Your task to perform on an android device: empty trash in the gmail app Image 0: 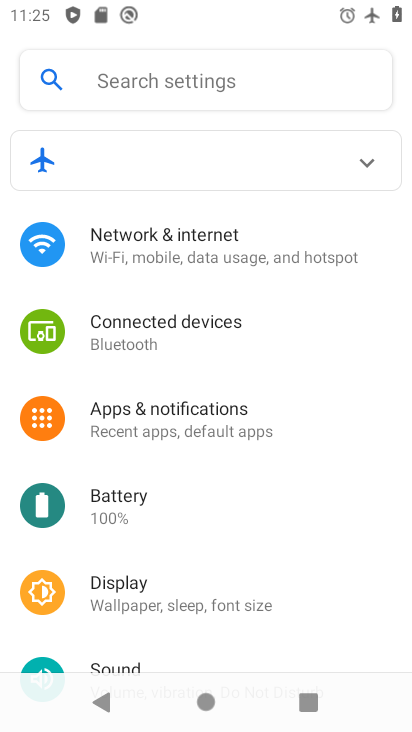
Step 0: press home button
Your task to perform on an android device: empty trash in the gmail app Image 1: 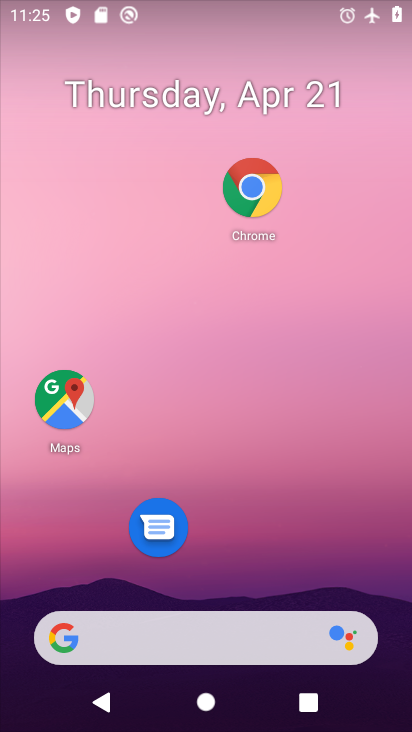
Step 1: drag from (315, 342) to (345, 44)
Your task to perform on an android device: empty trash in the gmail app Image 2: 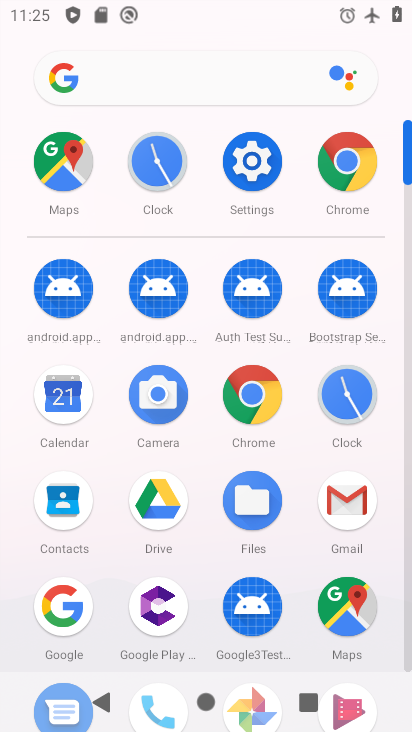
Step 2: click (341, 512)
Your task to perform on an android device: empty trash in the gmail app Image 3: 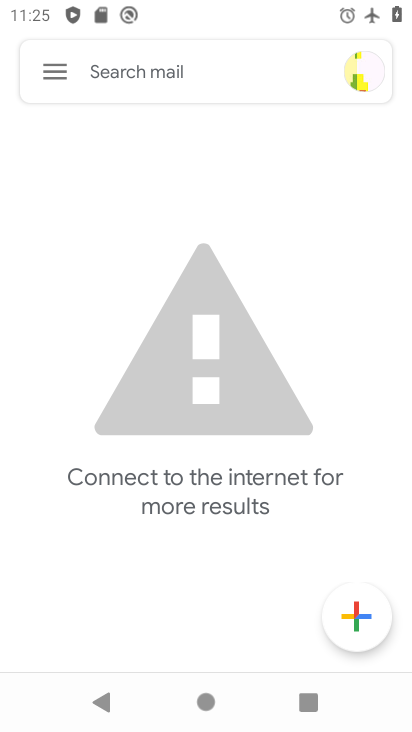
Step 3: click (64, 86)
Your task to perform on an android device: empty trash in the gmail app Image 4: 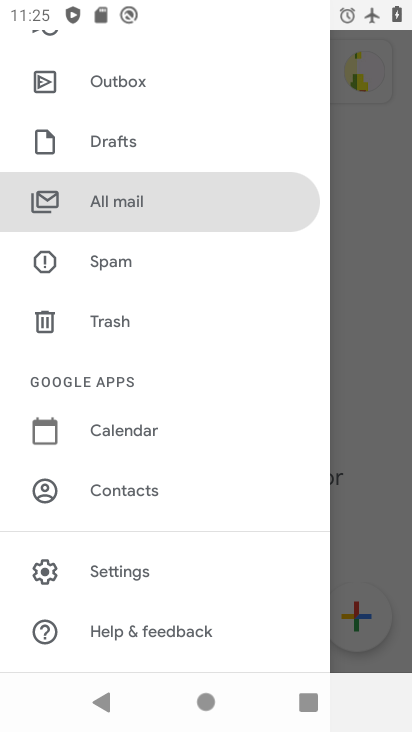
Step 4: click (174, 321)
Your task to perform on an android device: empty trash in the gmail app Image 5: 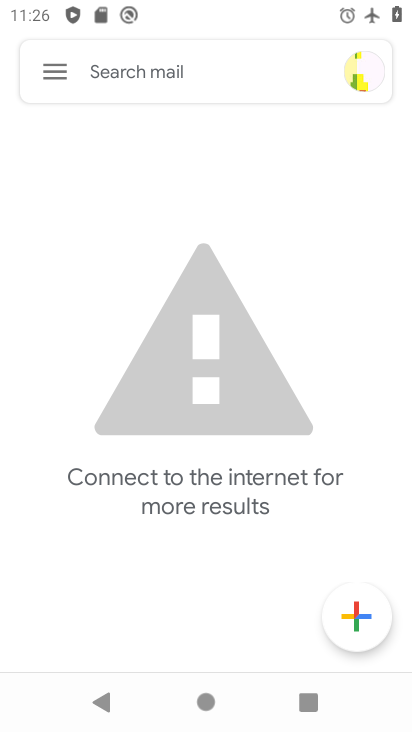
Step 5: task complete